Your task to perform on an android device: change the clock style Image 0: 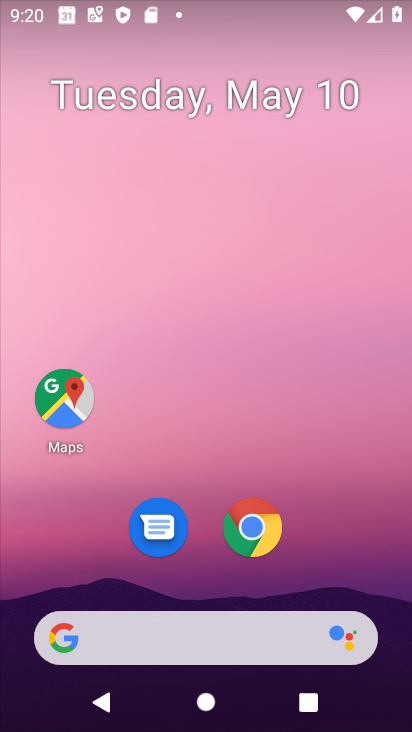
Step 0: click (256, 531)
Your task to perform on an android device: change the clock style Image 1: 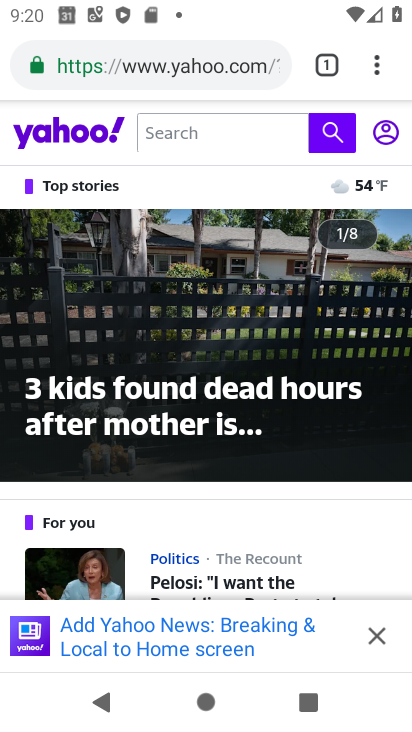
Step 1: click (323, 70)
Your task to perform on an android device: change the clock style Image 2: 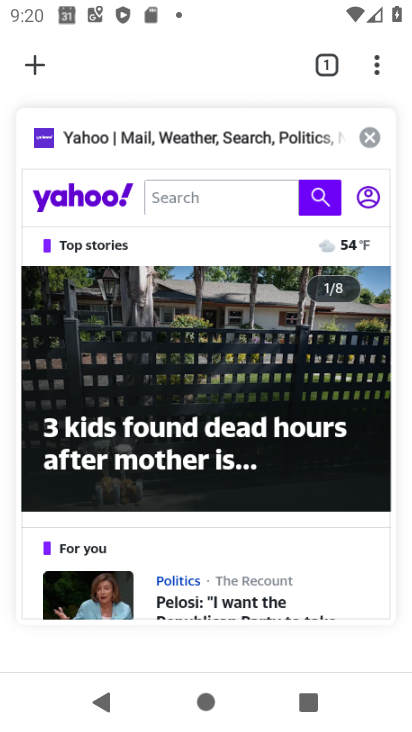
Step 2: click (38, 56)
Your task to perform on an android device: change the clock style Image 3: 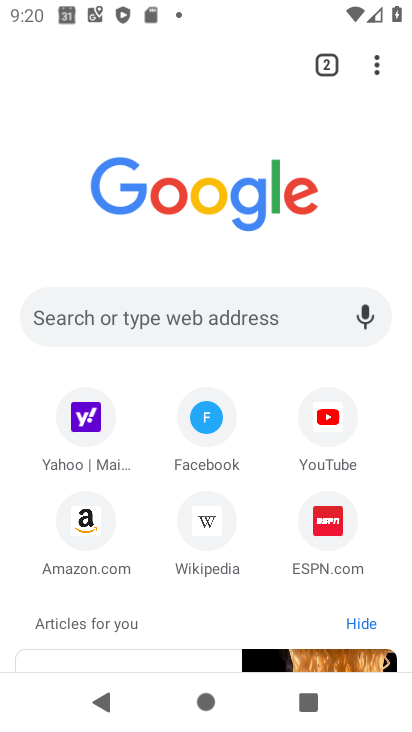
Step 3: click (190, 319)
Your task to perform on an android device: change the clock style Image 4: 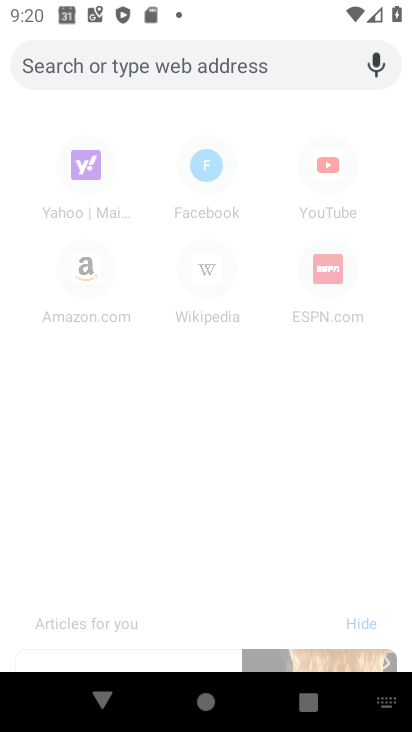
Step 4: click (133, 62)
Your task to perform on an android device: change the clock style Image 5: 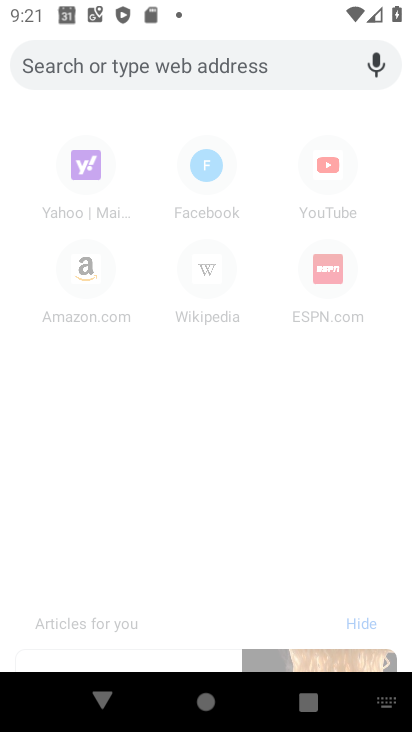
Step 5: type "www.reddit.com"
Your task to perform on an android device: change the clock style Image 6: 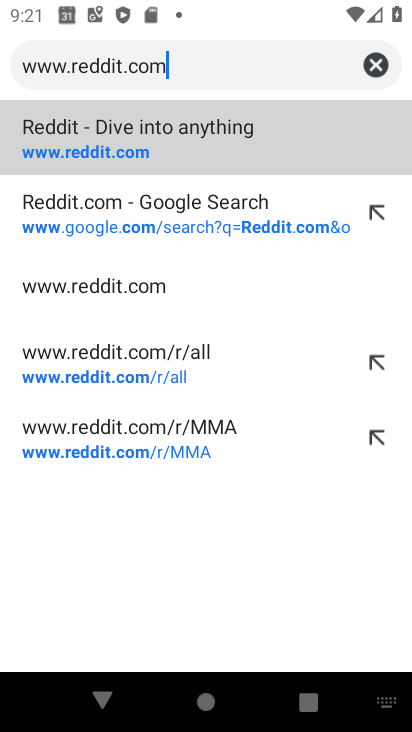
Step 6: click (64, 132)
Your task to perform on an android device: change the clock style Image 7: 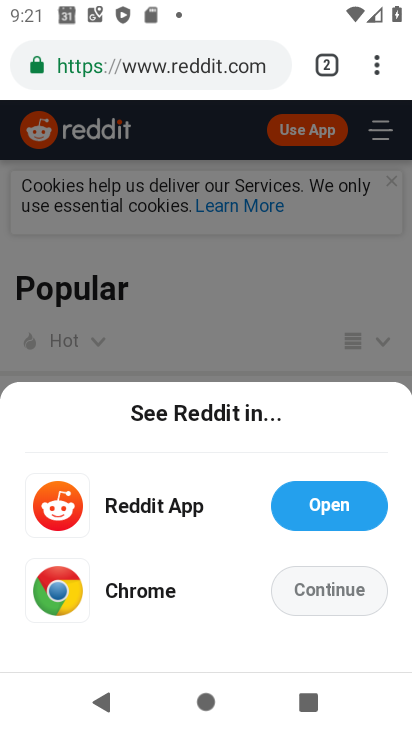
Step 7: task complete